Your task to perform on an android device: Go to calendar. Show me events next week Image 0: 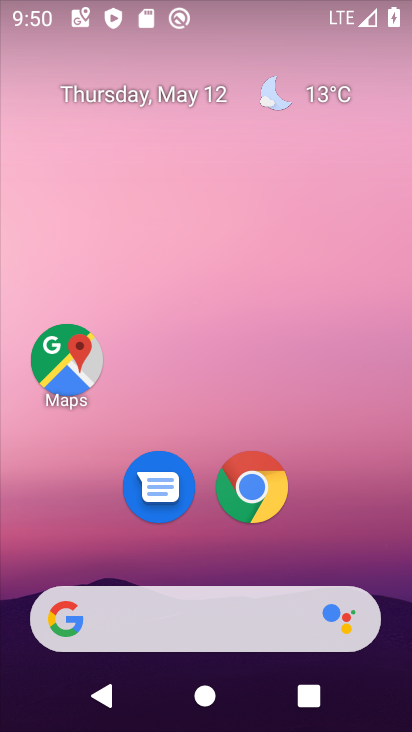
Step 0: drag from (366, 546) to (347, 7)
Your task to perform on an android device: Go to calendar. Show me events next week Image 1: 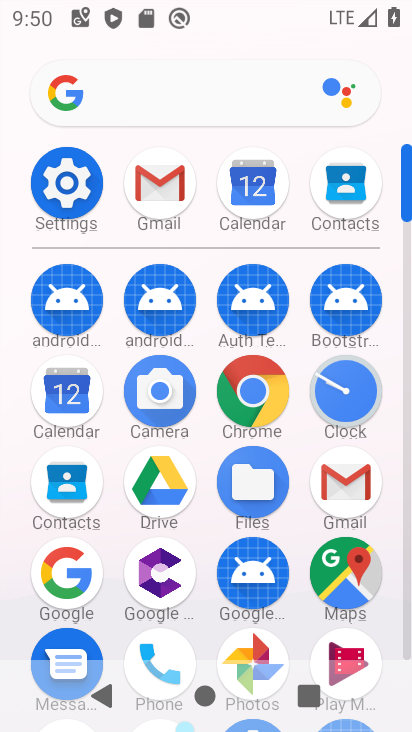
Step 1: click (336, 193)
Your task to perform on an android device: Go to calendar. Show me events next week Image 2: 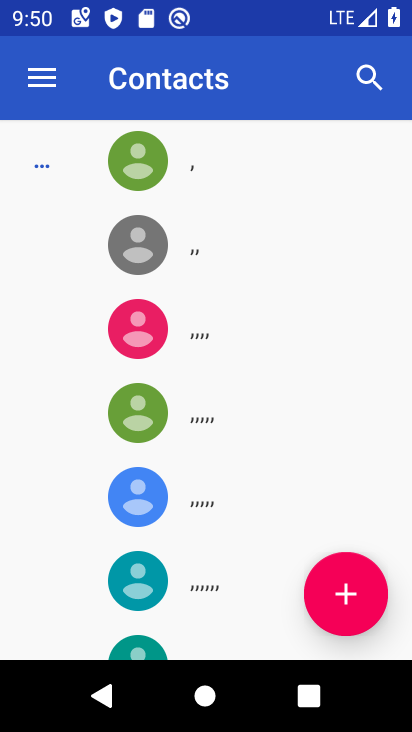
Step 2: press home button
Your task to perform on an android device: Go to calendar. Show me events next week Image 3: 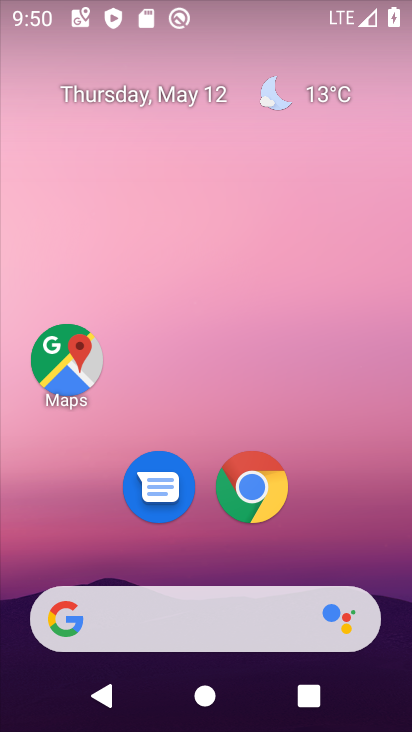
Step 3: drag from (344, 555) to (401, 11)
Your task to perform on an android device: Go to calendar. Show me events next week Image 4: 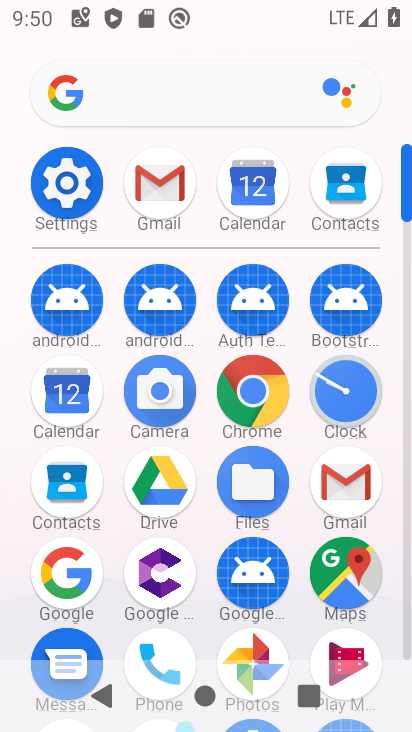
Step 4: click (258, 184)
Your task to perform on an android device: Go to calendar. Show me events next week Image 5: 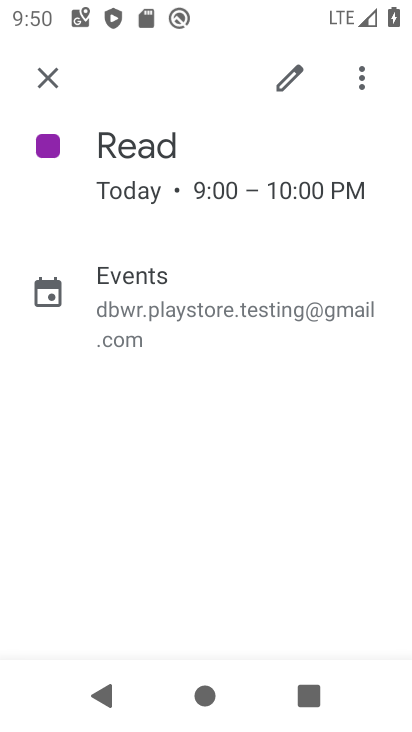
Step 5: click (44, 78)
Your task to perform on an android device: Go to calendar. Show me events next week Image 6: 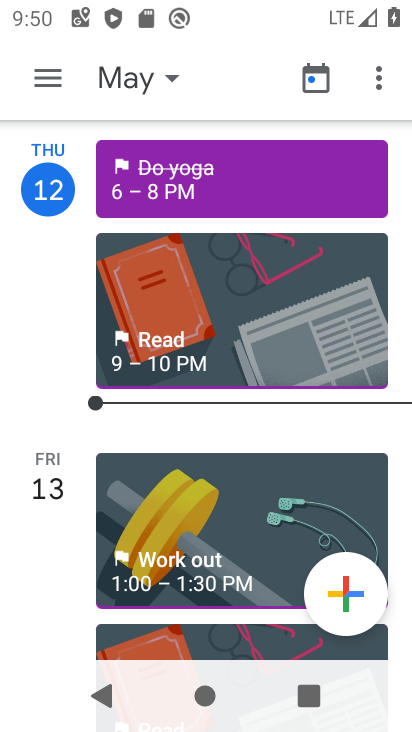
Step 6: click (58, 77)
Your task to perform on an android device: Go to calendar. Show me events next week Image 7: 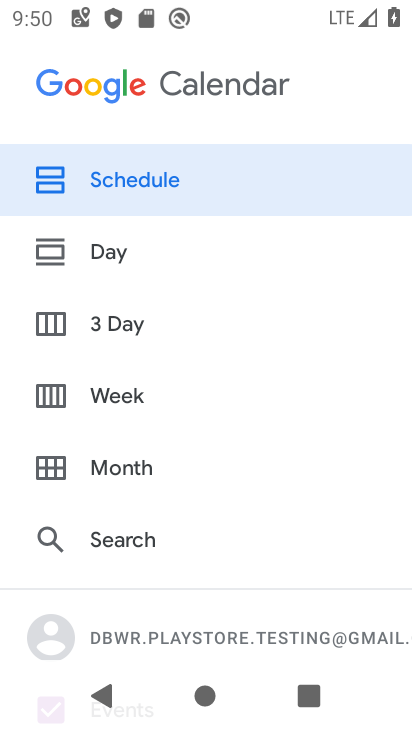
Step 7: click (100, 409)
Your task to perform on an android device: Go to calendar. Show me events next week Image 8: 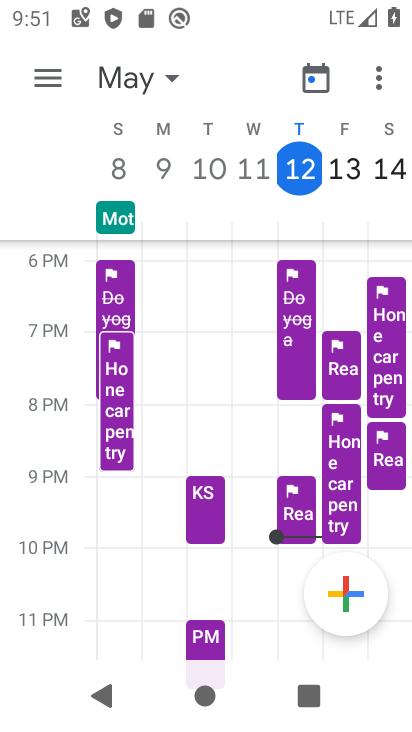
Step 8: drag from (313, 389) to (0, 262)
Your task to perform on an android device: Go to calendar. Show me events next week Image 9: 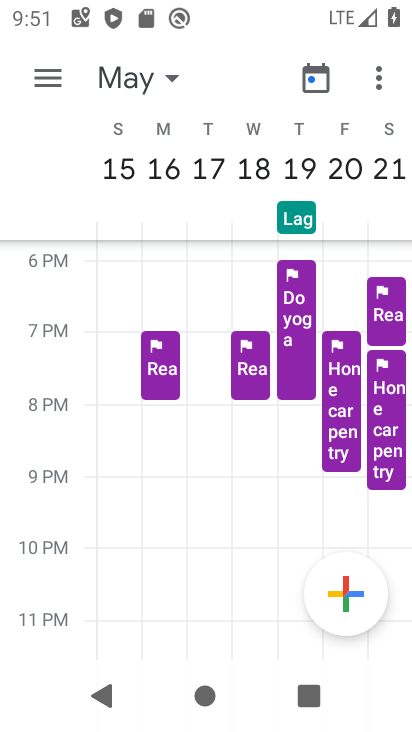
Step 9: click (48, 78)
Your task to perform on an android device: Go to calendar. Show me events next week Image 10: 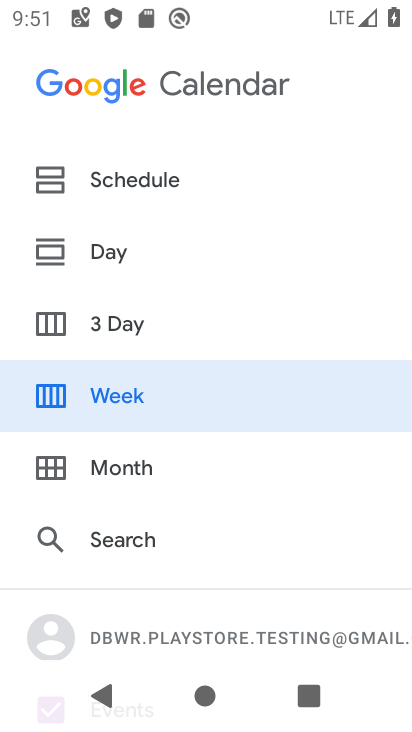
Step 10: drag from (169, 516) to (140, 1)
Your task to perform on an android device: Go to calendar. Show me events next week Image 11: 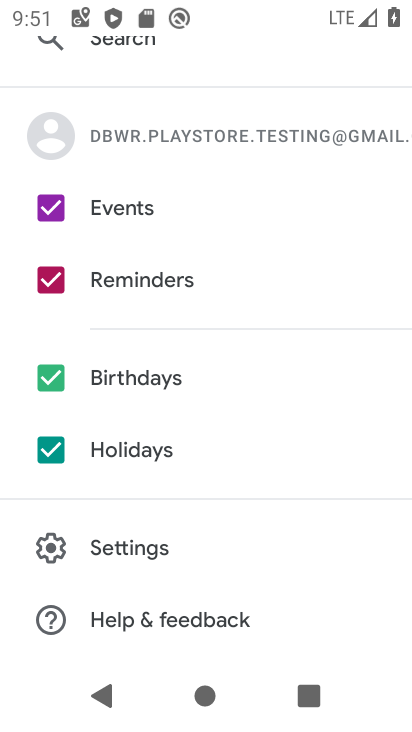
Step 11: click (54, 291)
Your task to perform on an android device: Go to calendar. Show me events next week Image 12: 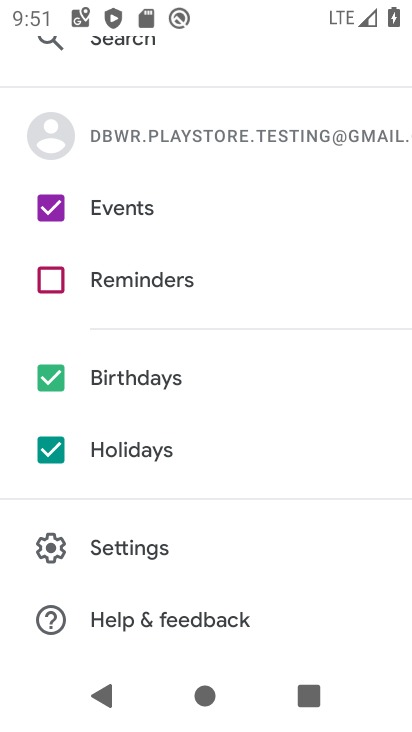
Step 12: click (51, 367)
Your task to perform on an android device: Go to calendar. Show me events next week Image 13: 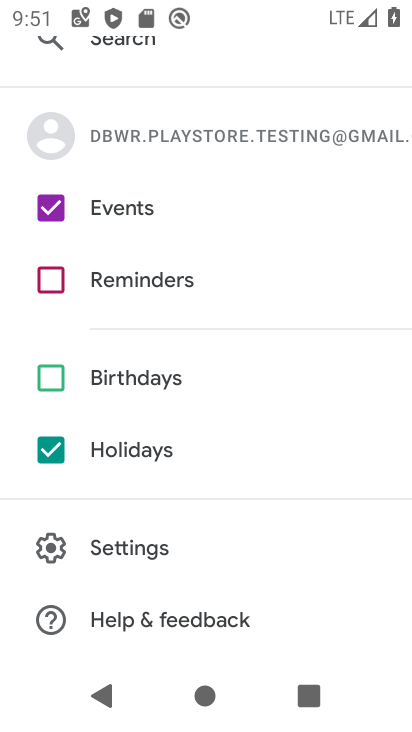
Step 13: click (45, 438)
Your task to perform on an android device: Go to calendar. Show me events next week Image 14: 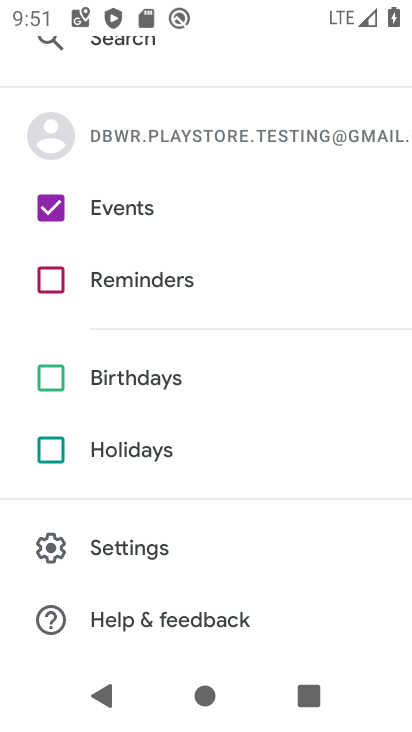
Step 14: drag from (125, 138) to (62, 642)
Your task to perform on an android device: Go to calendar. Show me events next week Image 15: 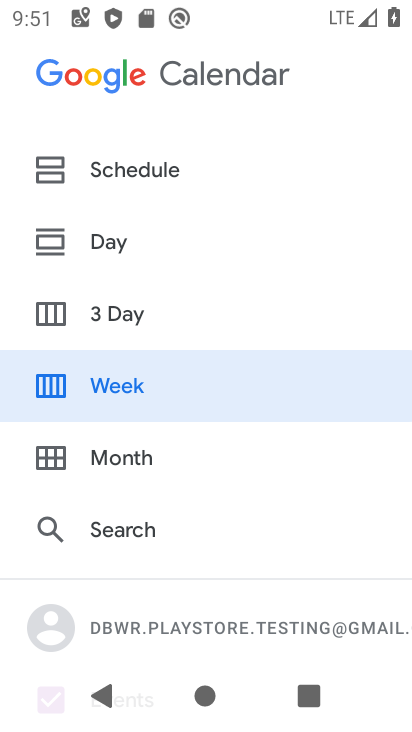
Step 15: click (112, 387)
Your task to perform on an android device: Go to calendar. Show me events next week Image 16: 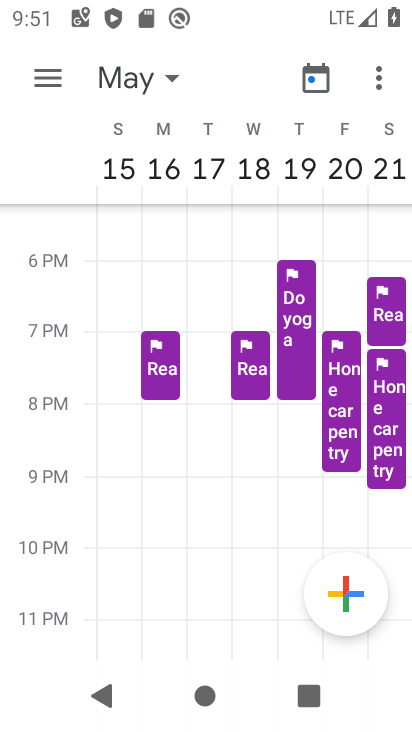
Step 16: task complete